Your task to perform on an android device: Turn off the flashlight Image 0: 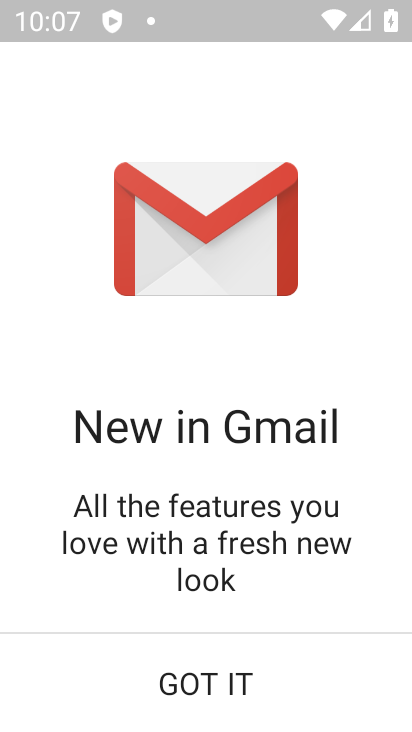
Step 0: click (204, 681)
Your task to perform on an android device: Turn off the flashlight Image 1: 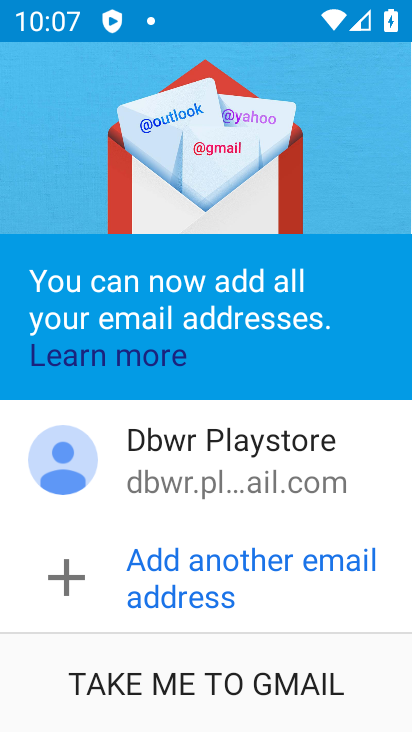
Step 1: click (204, 681)
Your task to perform on an android device: Turn off the flashlight Image 2: 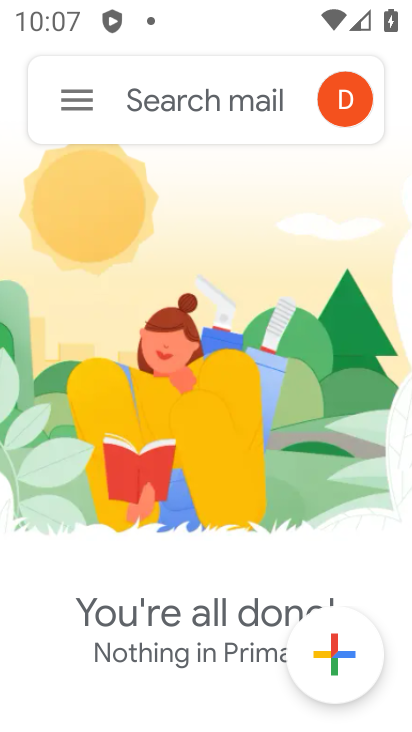
Step 2: task complete